Your task to perform on an android device: turn off javascript in the chrome app Image 0: 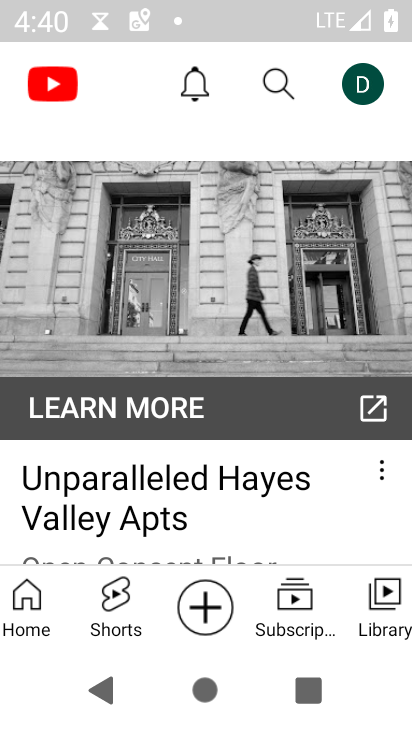
Step 0: press home button
Your task to perform on an android device: turn off javascript in the chrome app Image 1: 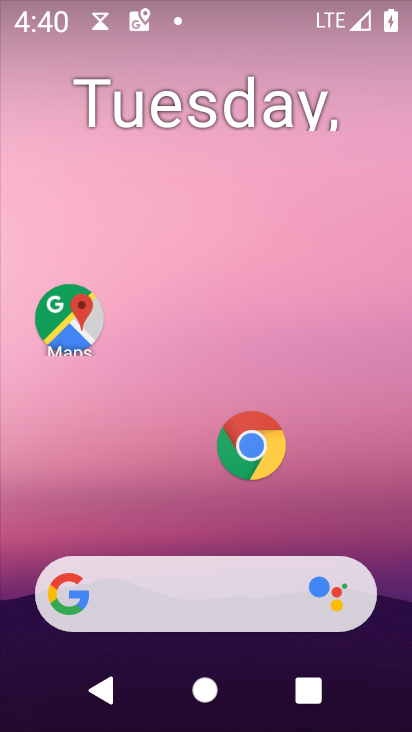
Step 1: click (246, 473)
Your task to perform on an android device: turn off javascript in the chrome app Image 2: 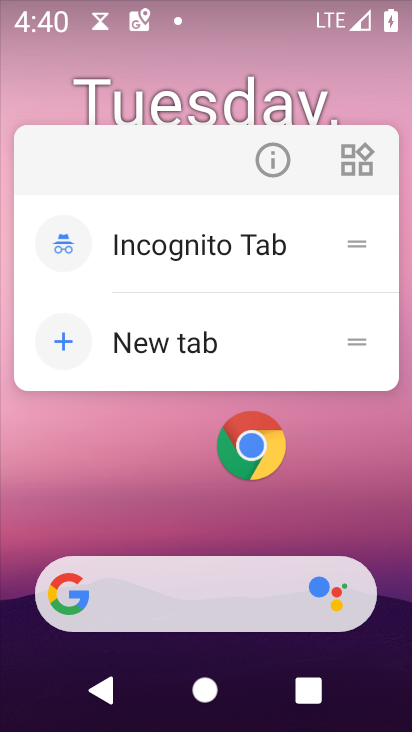
Step 2: click (268, 452)
Your task to perform on an android device: turn off javascript in the chrome app Image 3: 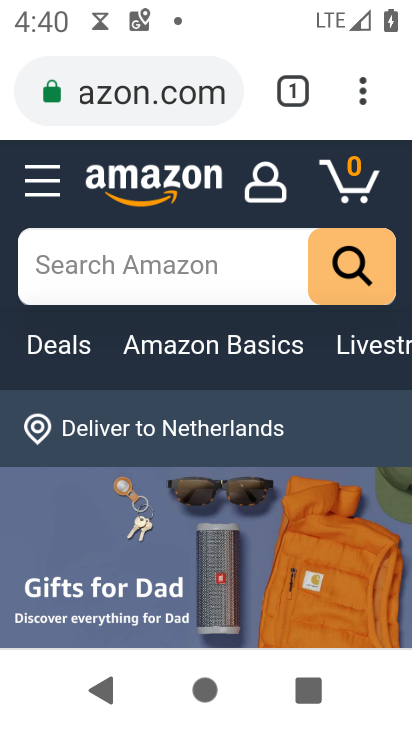
Step 3: click (371, 95)
Your task to perform on an android device: turn off javascript in the chrome app Image 4: 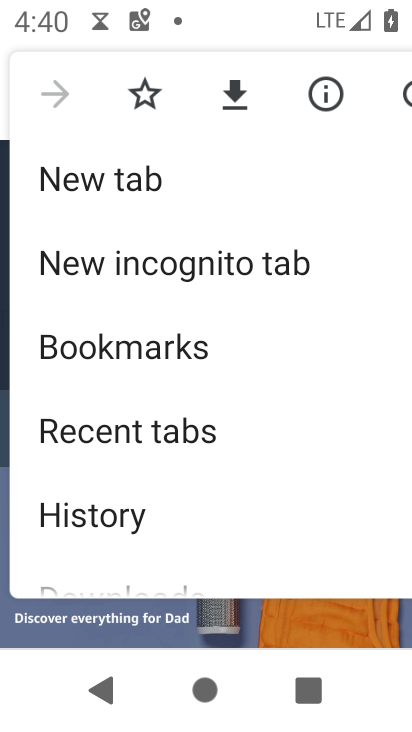
Step 4: drag from (150, 549) to (159, 43)
Your task to perform on an android device: turn off javascript in the chrome app Image 5: 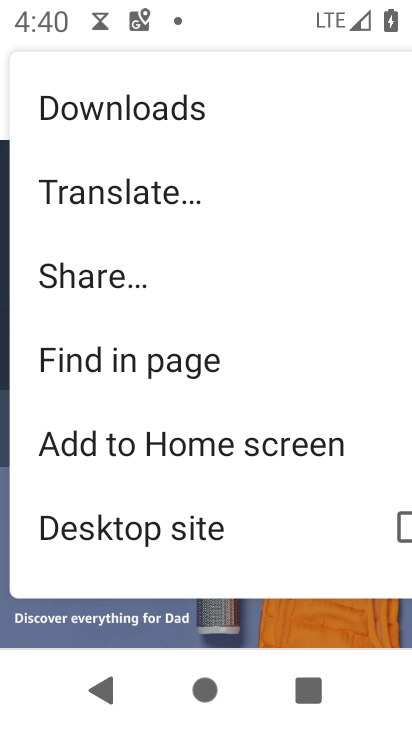
Step 5: drag from (140, 504) to (188, 160)
Your task to perform on an android device: turn off javascript in the chrome app Image 6: 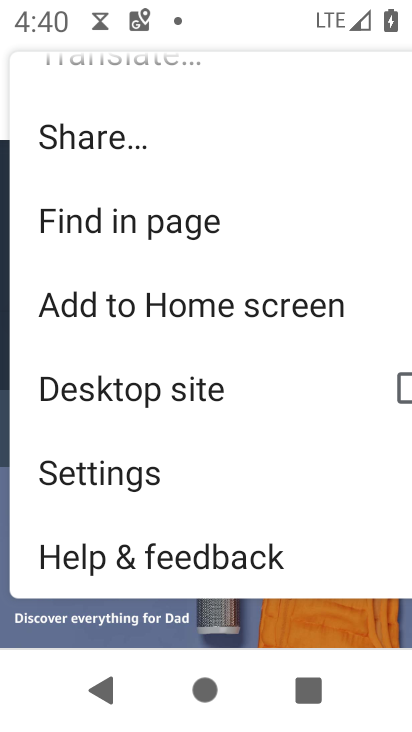
Step 6: click (106, 476)
Your task to perform on an android device: turn off javascript in the chrome app Image 7: 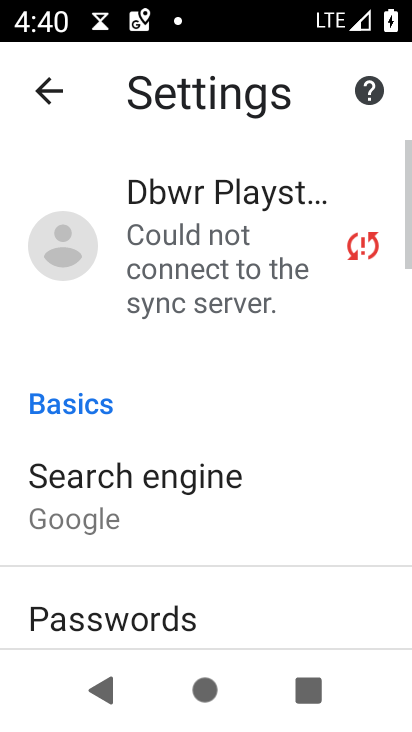
Step 7: drag from (176, 554) to (229, 103)
Your task to perform on an android device: turn off javascript in the chrome app Image 8: 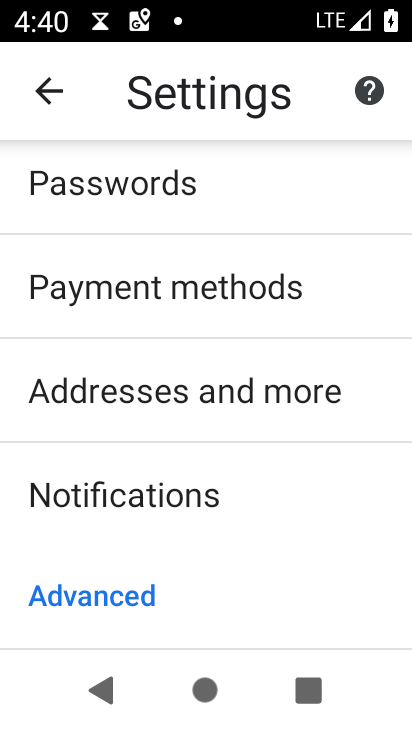
Step 8: drag from (220, 502) to (214, 242)
Your task to perform on an android device: turn off javascript in the chrome app Image 9: 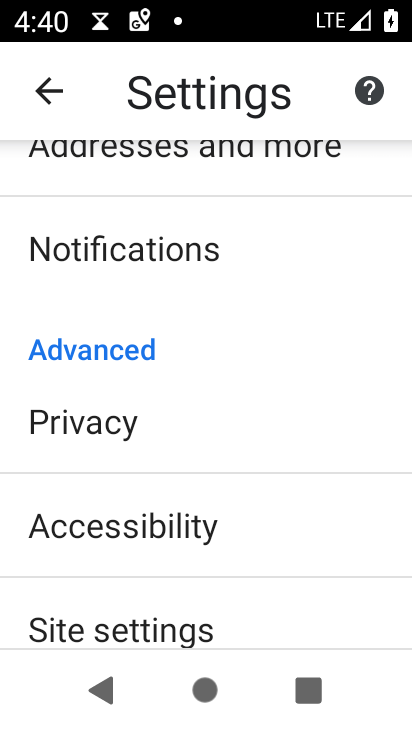
Step 9: drag from (127, 612) to (157, 492)
Your task to perform on an android device: turn off javascript in the chrome app Image 10: 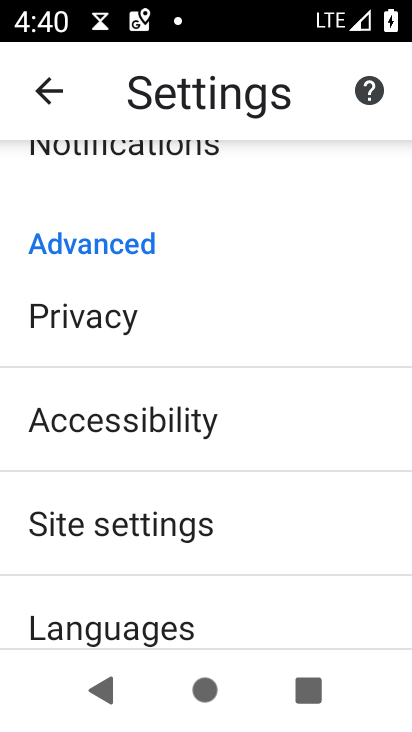
Step 10: click (132, 531)
Your task to perform on an android device: turn off javascript in the chrome app Image 11: 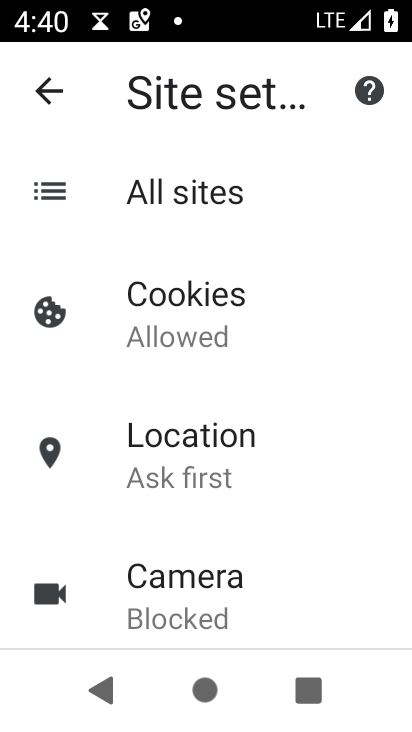
Step 11: drag from (214, 520) to (253, 228)
Your task to perform on an android device: turn off javascript in the chrome app Image 12: 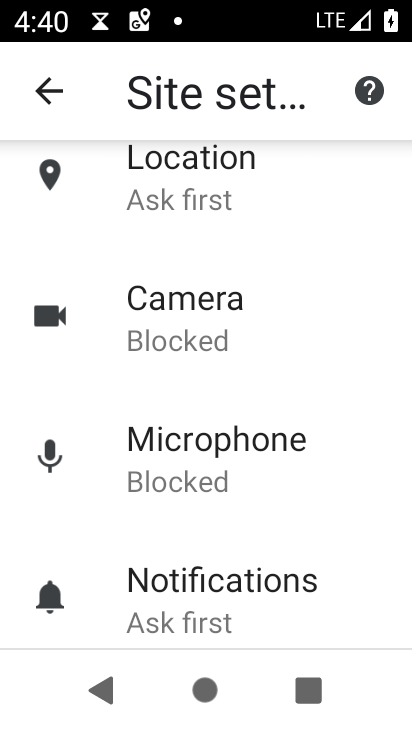
Step 12: drag from (164, 516) to (174, 336)
Your task to perform on an android device: turn off javascript in the chrome app Image 13: 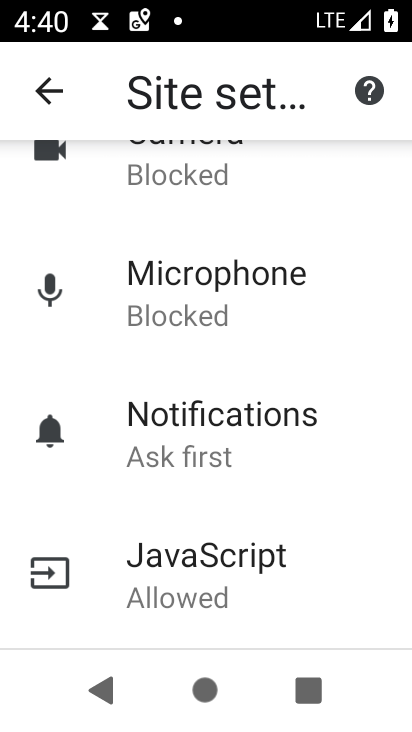
Step 13: click (156, 587)
Your task to perform on an android device: turn off javascript in the chrome app Image 14: 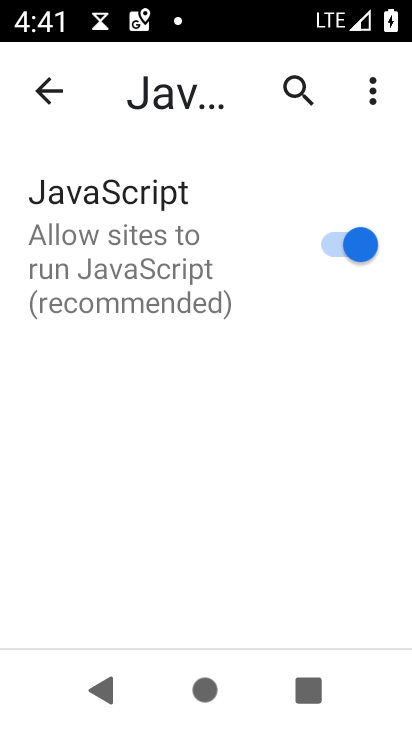
Step 14: click (325, 241)
Your task to perform on an android device: turn off javascript in the chrome app Image 15: 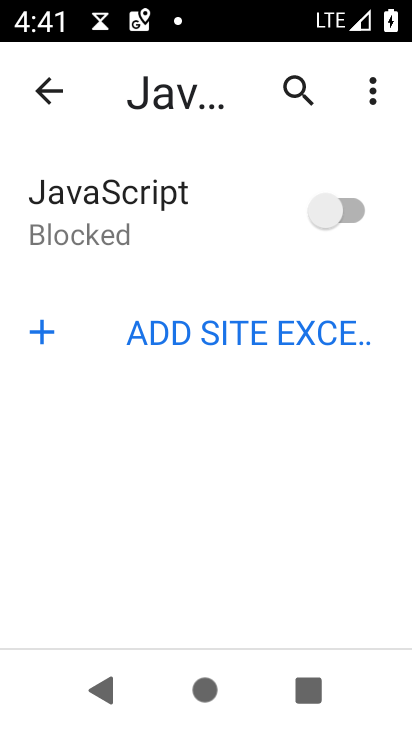
Step 15: task complete